Your task to perform on an android device: Go to Yahoo.com Image 0: 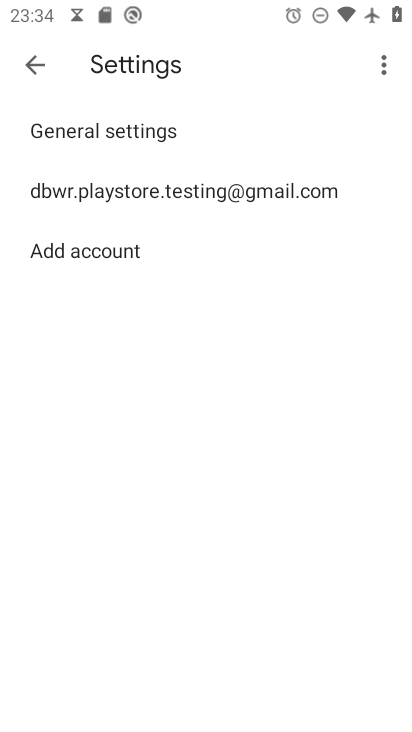
Step 0: press home button
Your task to perform on an android device: Go to Yahoo.com Image 1: 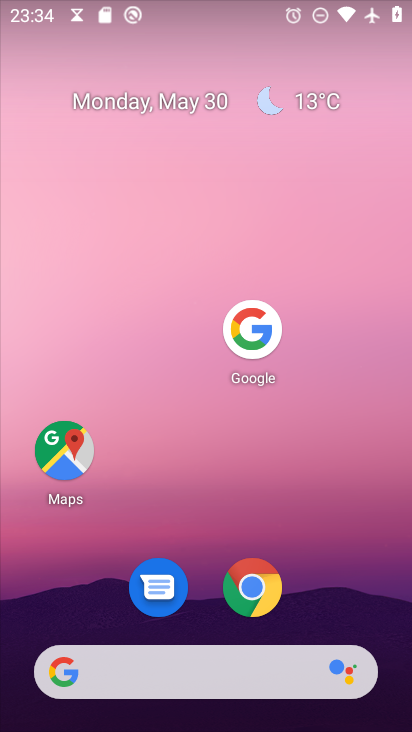
Step 1: click (251, 580)
Your task to perform on an android device: Go to Yahoo.com Image 2: 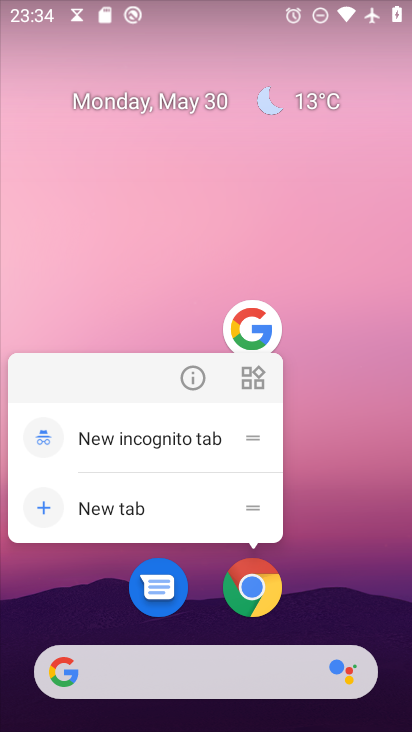
Step 2: click (261, 600)
Your task to perform on an android device: Go to Yahoo.com Image 3: 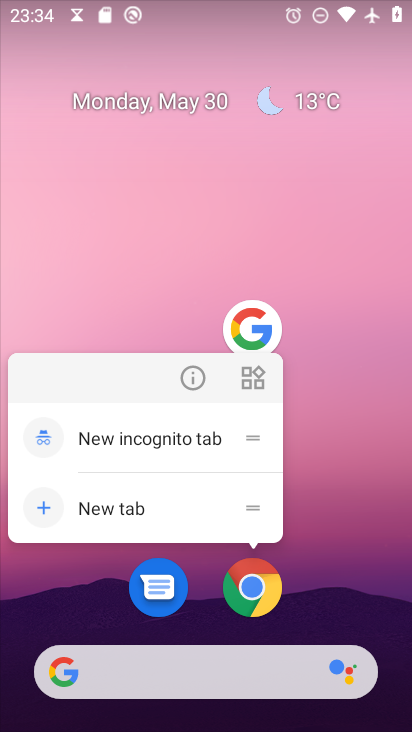
Step 3: click (248, 585)
Your task to perform on an android device: Go to Yahoo.com Image 4: 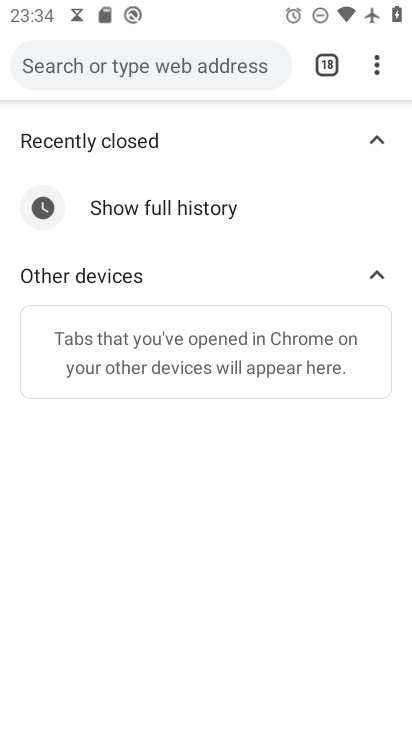
Step 4: drag from (375, 74) to (231, 135)
Your task to perform on an android device: Go to Yahoo.com Image 5: 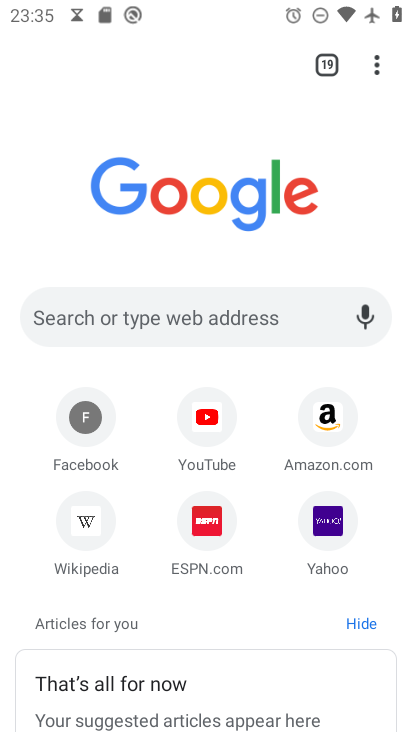
Step 5: click (331, 524)
Your task to perform on an android device: Go to Yahoo.com Image 6: 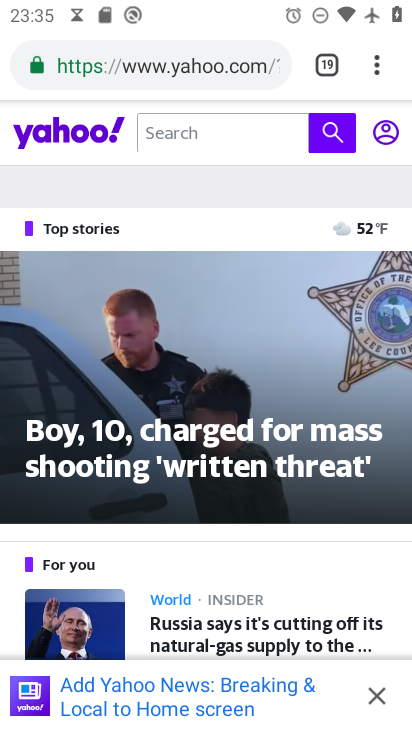
Step 6: task complete